Your task to perform on an android device: Open the web browser Image 0: 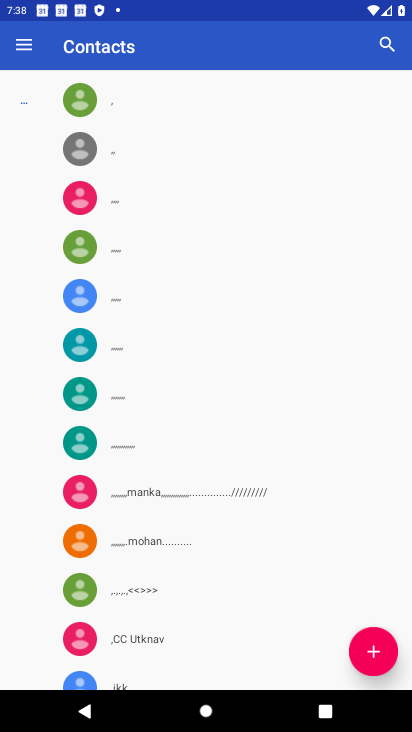
Step 0: press home button
Your task to perform on an android device: Open the web browser Image 1: 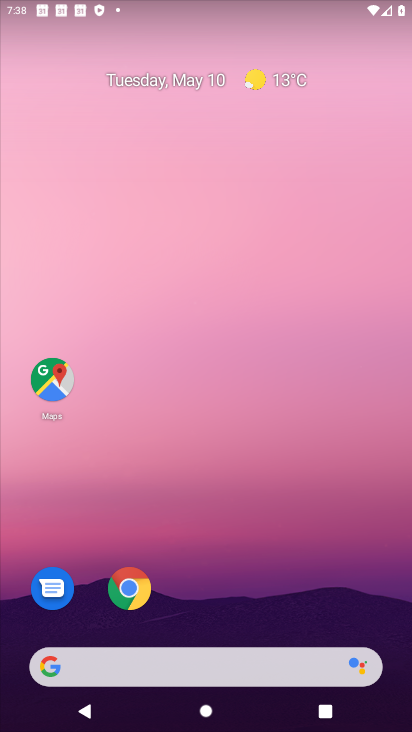
Step 1: click (132, 586)
Your task to perform on an android device: Open the web browser Image 2: 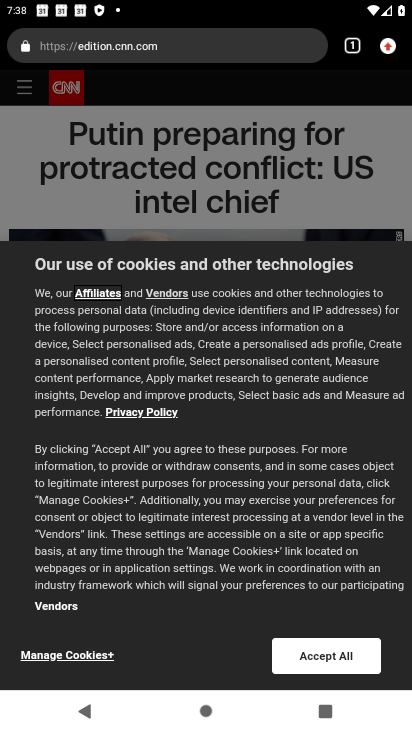
Step 2: task complete